Your task to perform on an android device: Search for Mexican restaurants on Maps Image 0: 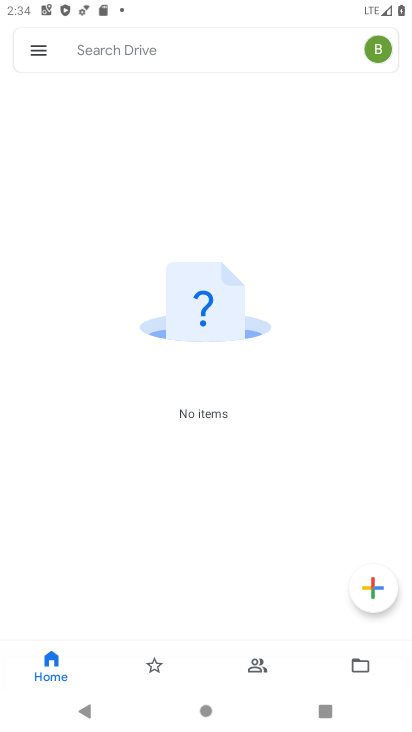
Step 0: press home button
Your task to perform on an android device: Search for Mexican restaurants on Maps Image 1: 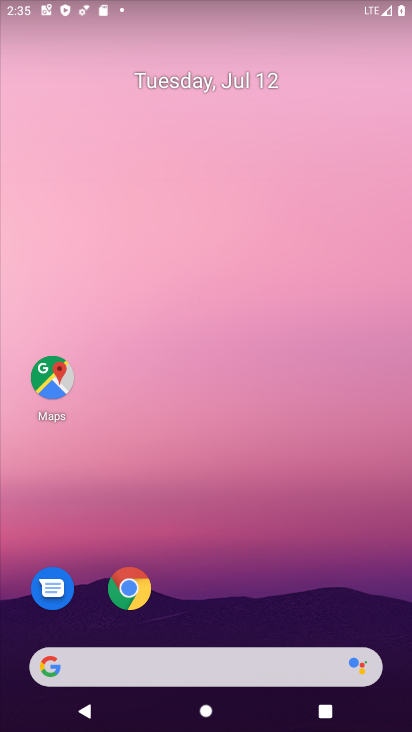
Step 1: click (50, 393)
Your task to perform on an android device: Search for Mexican restaurants on Maps Image 2: 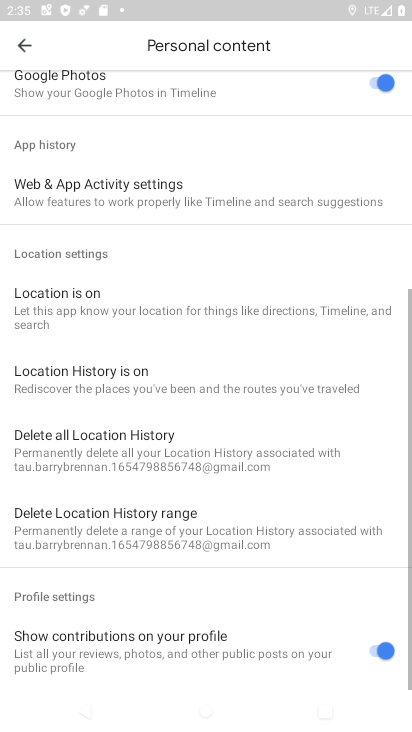
Step 2: click (24, 52)
Your task to perform on an android device: Search for Mexican restaurants on Maps Image 3: 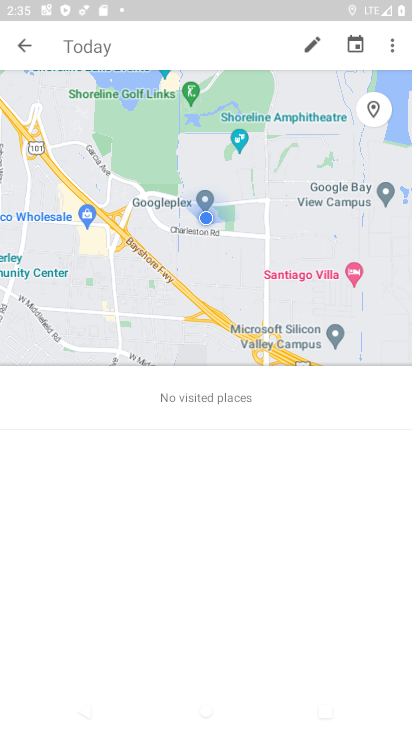
Step 3: click (19, 44)
Your task to perform on an android device: Search for Mexican restaurants on Maps Image 4: 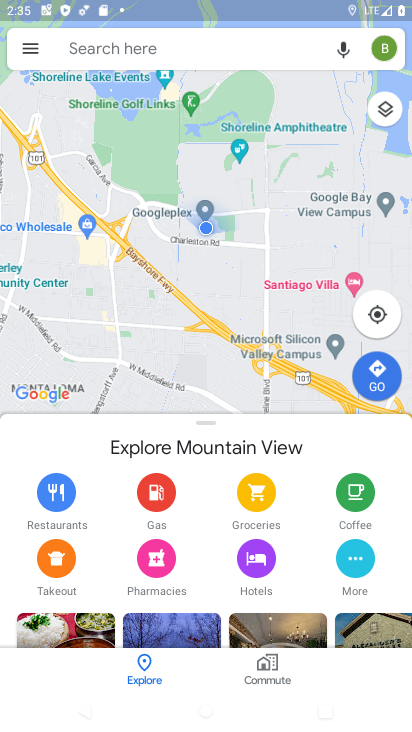
Step 4: click (117, 48)
Your task to perform on an android device: Search for Mexican restaurants on Maps Image 5: 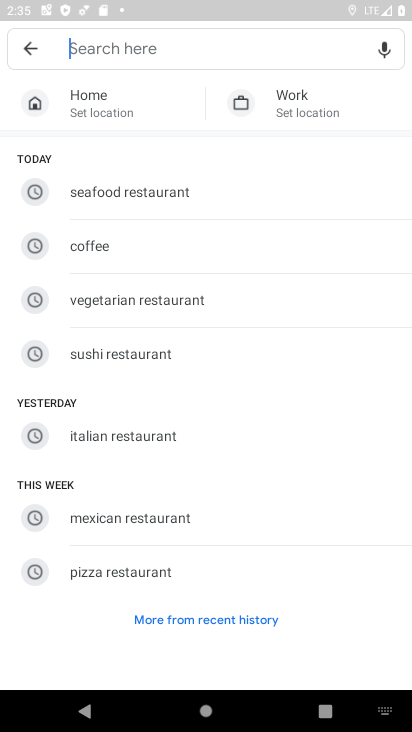
Step 5: click (154, 516)
Your task to perform on an android device: Search for Mexican restaurants on Maps Image 6: 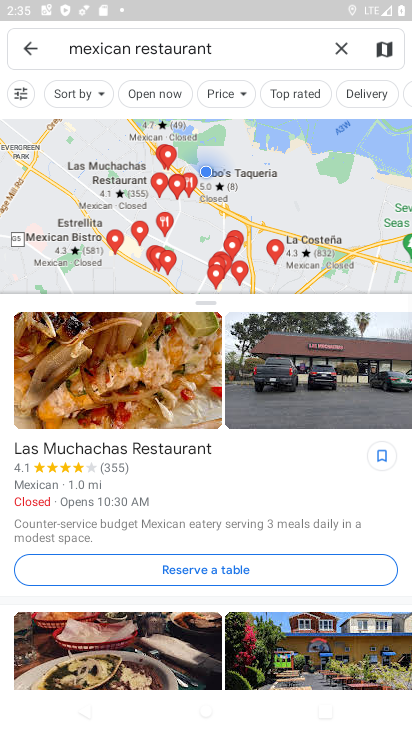
Step 6: task complete